Your task to perform on an android device: Open CNN.com Image 0: 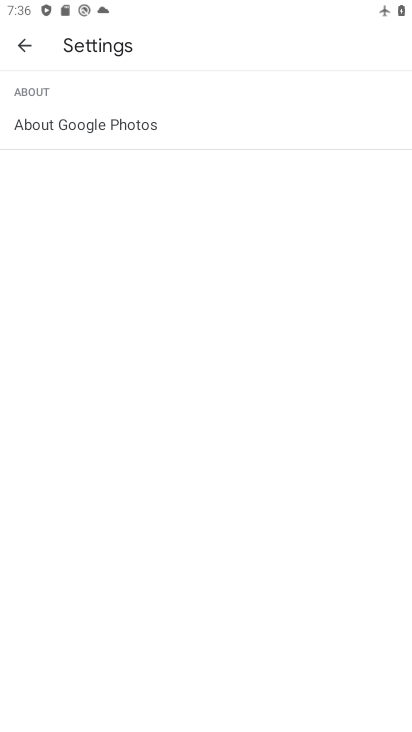
Step 0: press home button
Your task to perform on an android device: Open CNN.com Image 1: 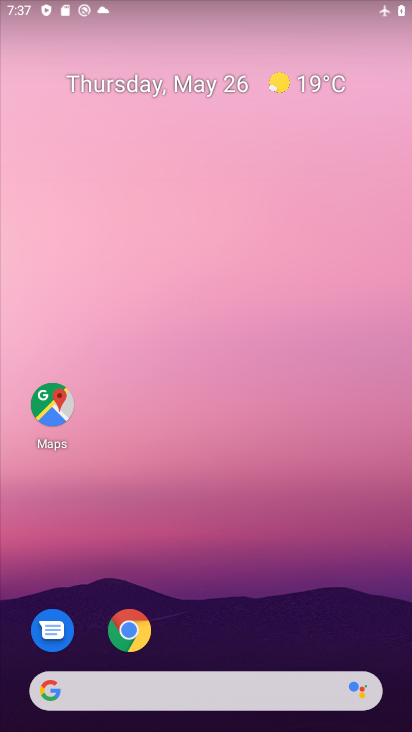
Step 1: click (128, 630)
Your task to perform on an android device: Open CNN.com Image 2: 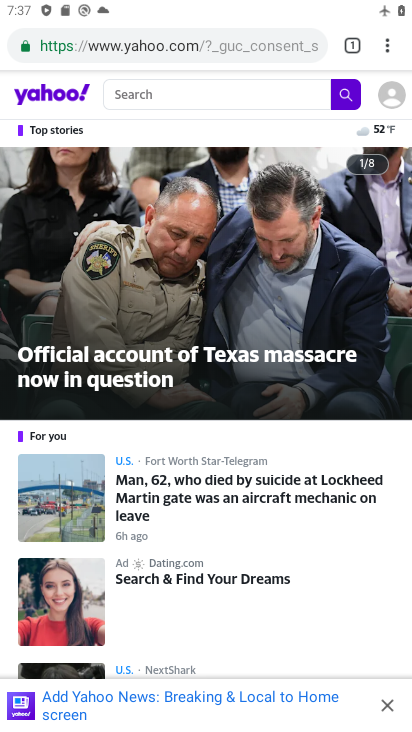
Step 2: click (244, 43)
Your task to perform on an android device: Open CNN.com Image 3: 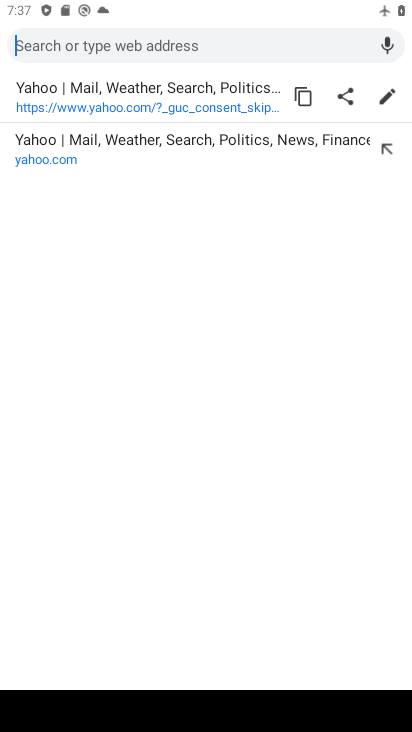
Step 3: click (208, 47)
Your task to perform on an android device: Open CNN.com Image 4: 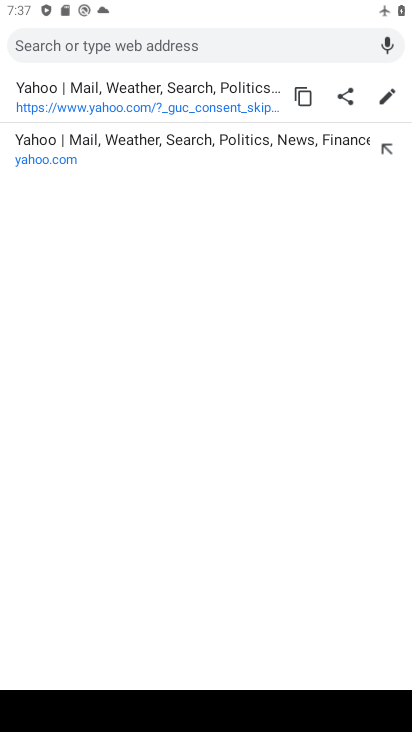
Step 4: type "CNN.com"
Your task to perform on an android device: Open CNN.com Image 5: 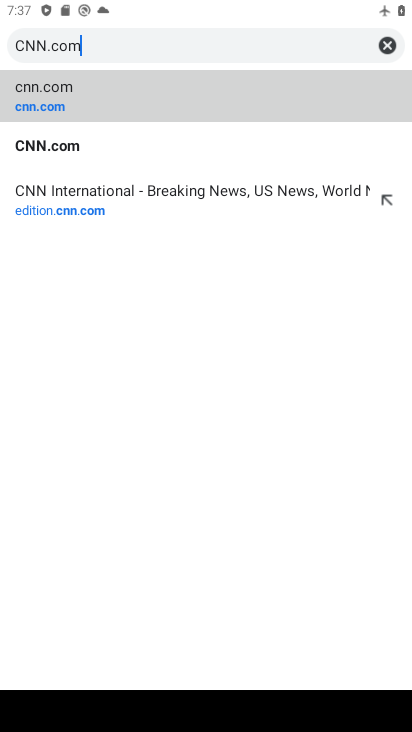
Step 5: click (64, 147)
Your task to perform on an android device: Open CNN.com Image 6: 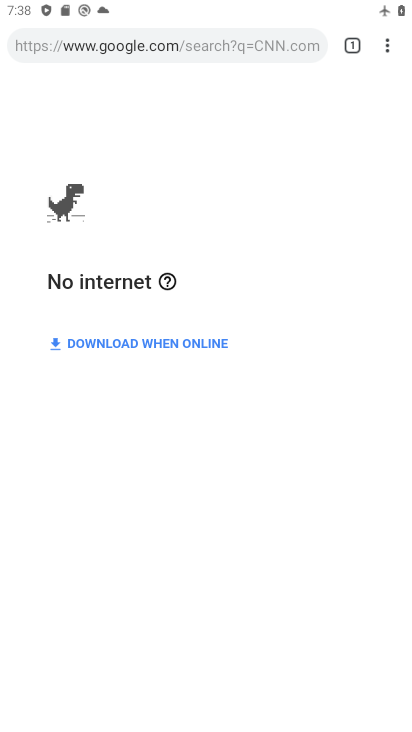
Step 6: task complete